Your task to perform on an android device: turn on the 12-hour format for clock Image 0: 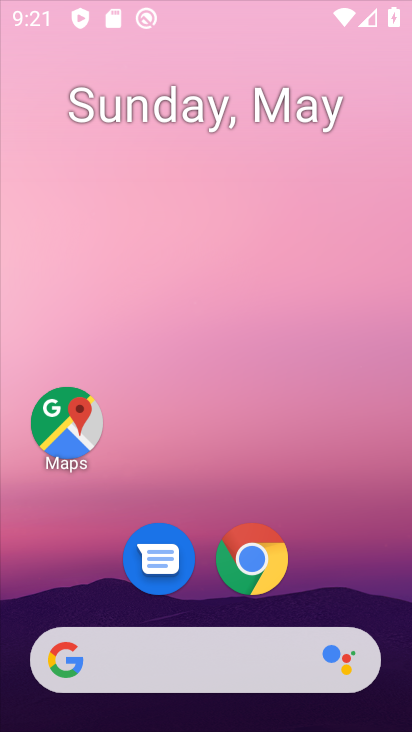
Step 0: press home button
Your task to perform on an android device: turn on the 12-hour format for clock Image 1: 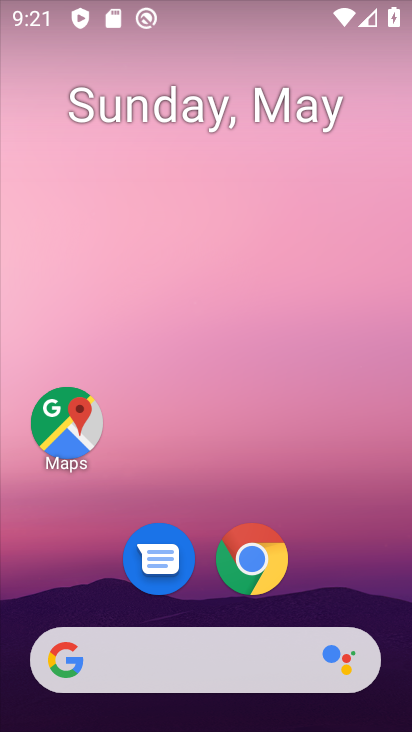
Step 1: drag from (344, 614) to (307, 259)
Your task to perform on an android device: turn on the 12-hour format for clock Image 2: 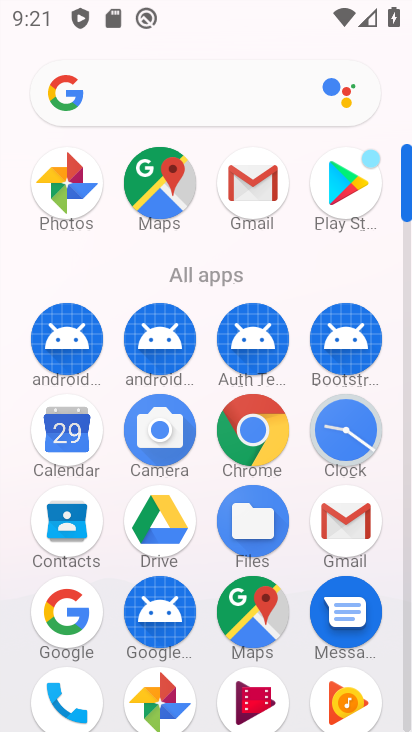
Step 2: drag from (400, 556) to (409, 190)
Your task to perform on an android device: turn on the 12-hour format for clock Image 3: 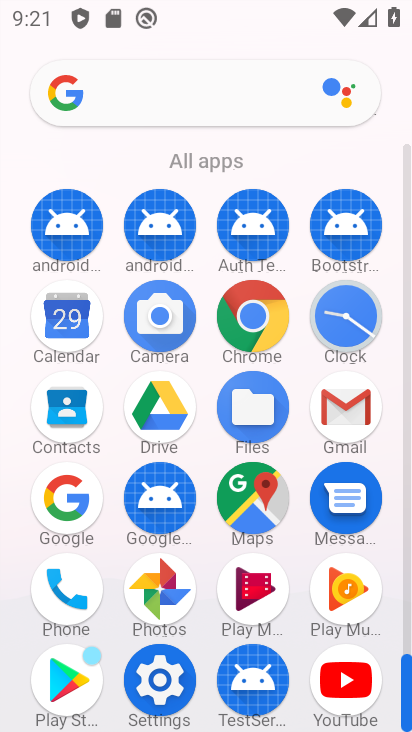
Step 3: click (162, 676)
Your task to perform on an android device: turn on the 12-hour format for clock Image 4: 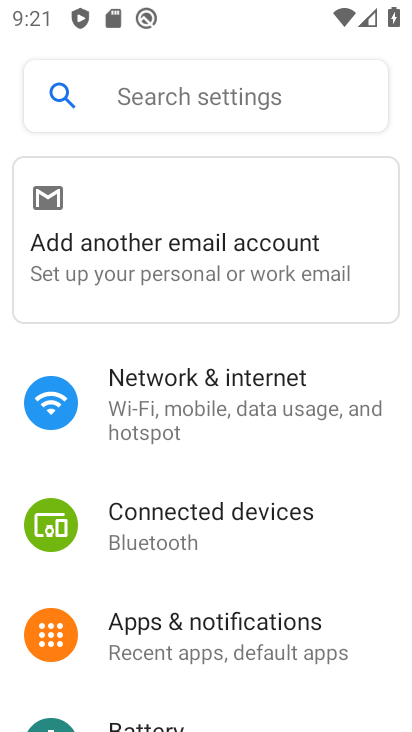
Step 4: drag from (320, 566) to (326, 139)
Your task to perform on an android device: turn on the 12-hour format for clock Image 5: 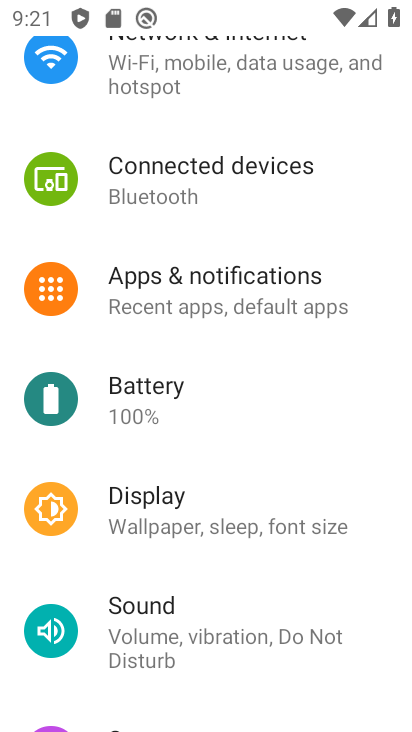
Step 5: drag from (313, 562) to (317, 56)
Your task to perform on an android device: turn on the 12-hour format for clock Image 6: 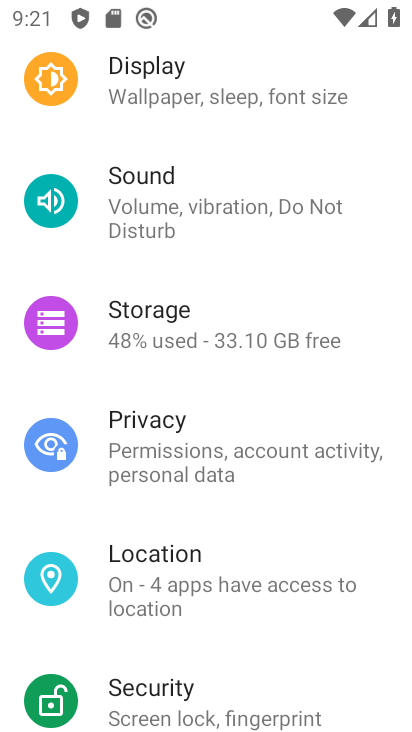
Step 6: drag from (276, 613) to (267, 249)
Your task to perform on an android device: turn on the 12-hour format for clock Image 7: 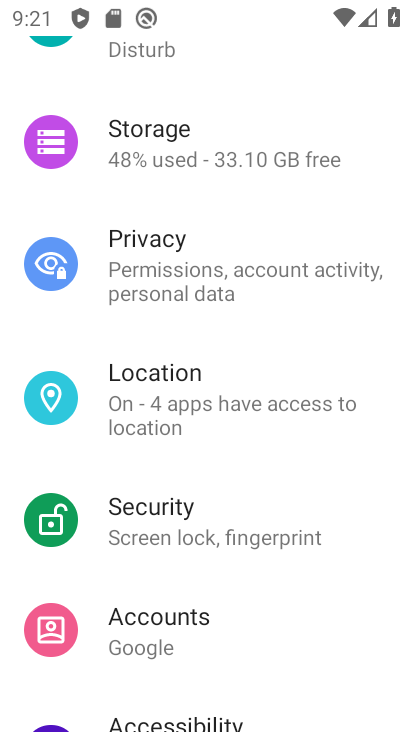
Step 7: drag from (286, 624) to (282, 149)
Your task to perform on an android device: turn on the 12-hour format for clock Image 8: 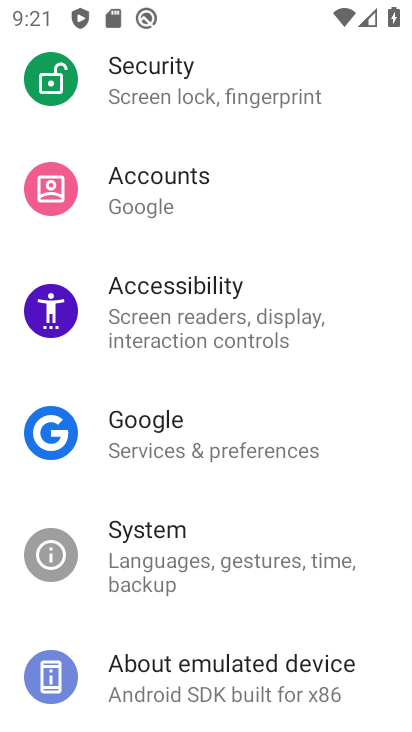
Step 8: click (149, 543)
Your task to perform on an android device: turn on the 12-hour format for clock Image 9: 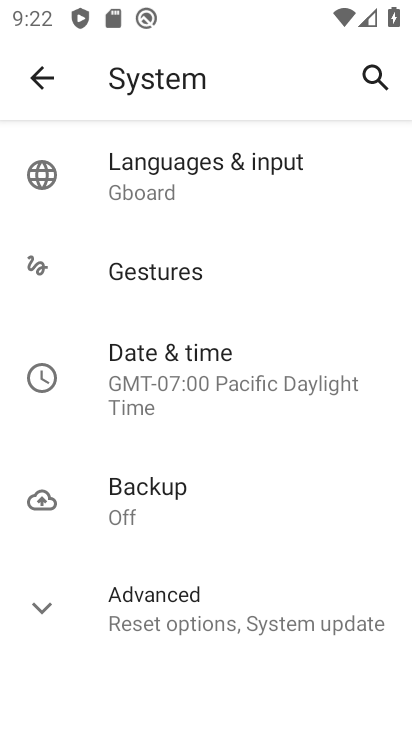
Step 9: click (170, 357)
Your task to perform on an android device: turn on the 12-hour format for clock Image 10: 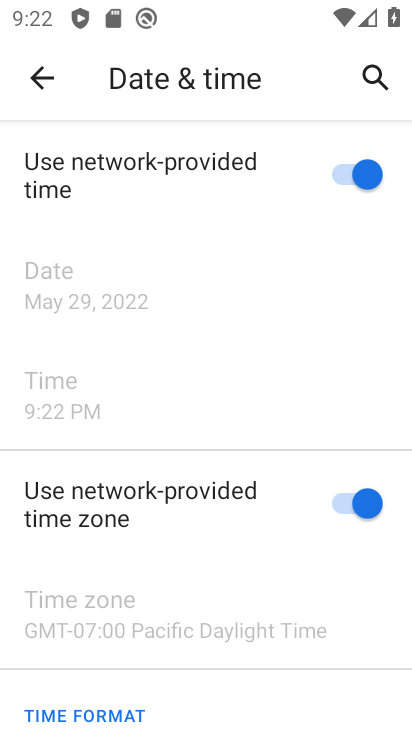
Step 10: drag from (264, 554) to (265, 80)
Your task to perform on an android device: turn on the 12-hour format for clock Image 11: 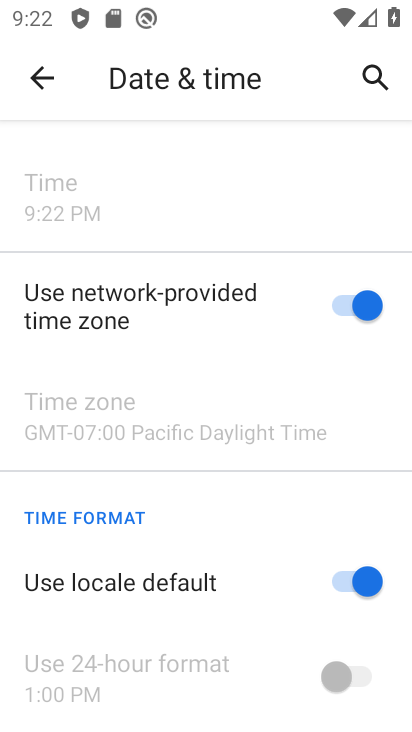
Step 11: drag from (272, 582) to (264, 188)
Your task to perform on an android device: turn on the 12-hour format for clock Image 12: 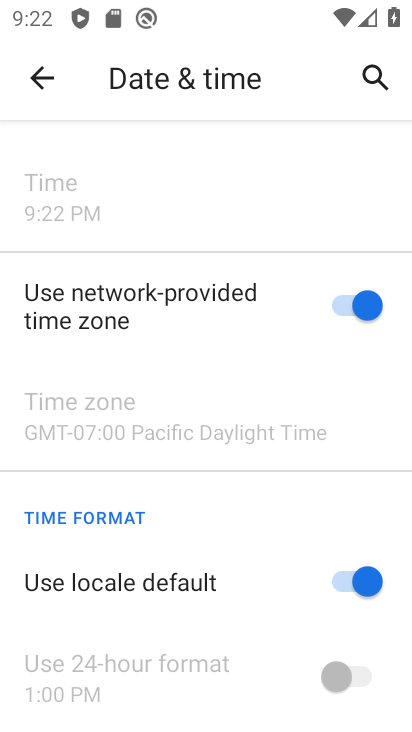
Step 12: click (374, 586)
Your task to perform on an android device: turn on the 12-hour format for clock Image 13: 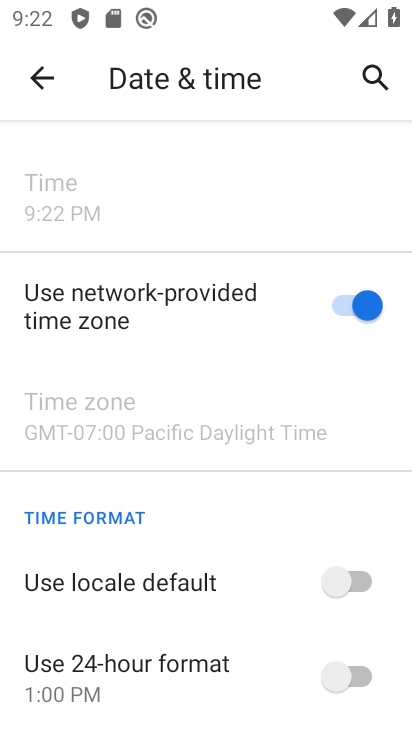
Step 13: click (337, 673)
Your task to perform on an android device: turn on the 12-hour format for clock Image 14: 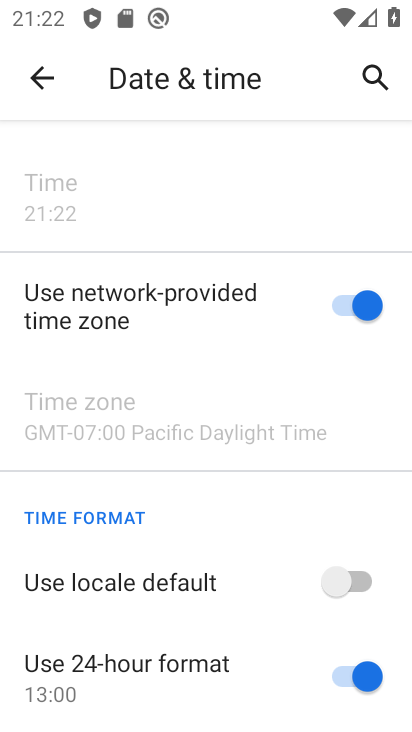
Step 14: click (372, 674)
Your task to perform on an android device: turn on the 12-hour format for clock Image 15: 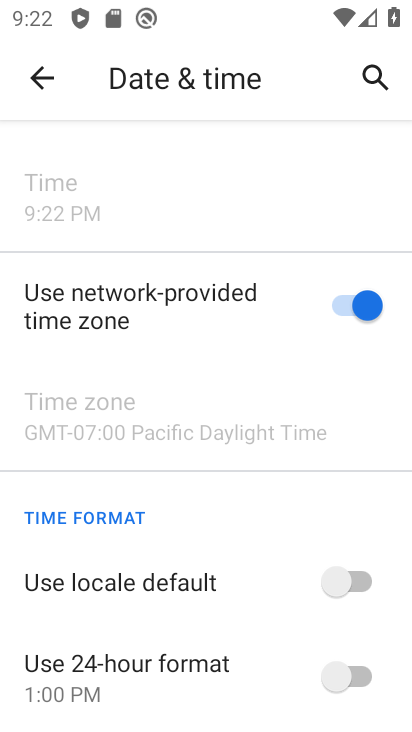
Step 15: task complete